Your task to perform on an android device: Go to CNN.com Image 0: 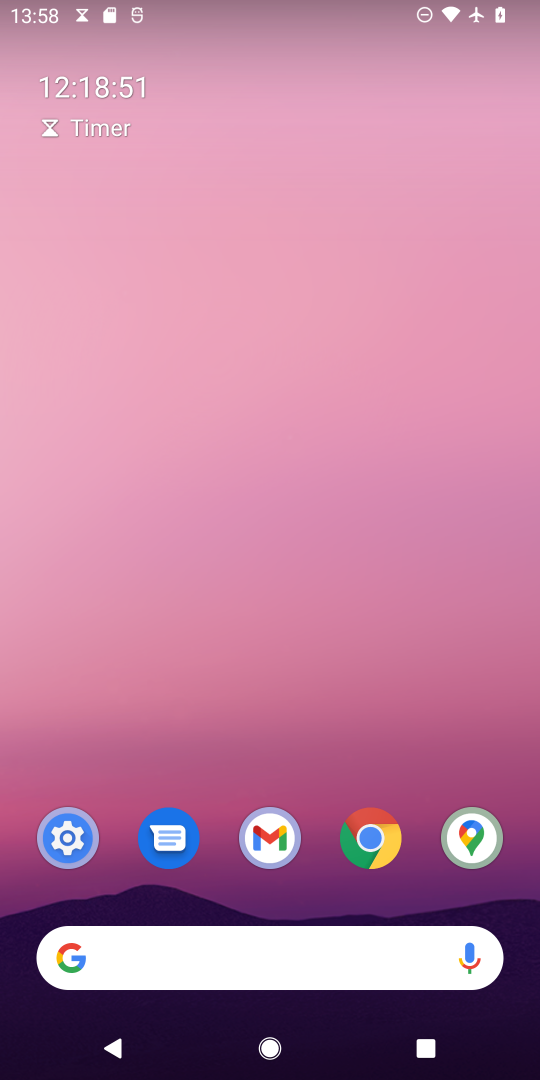
Step 0: press home button
Your task to perform on an android device: Go to CNN.com Image 1: 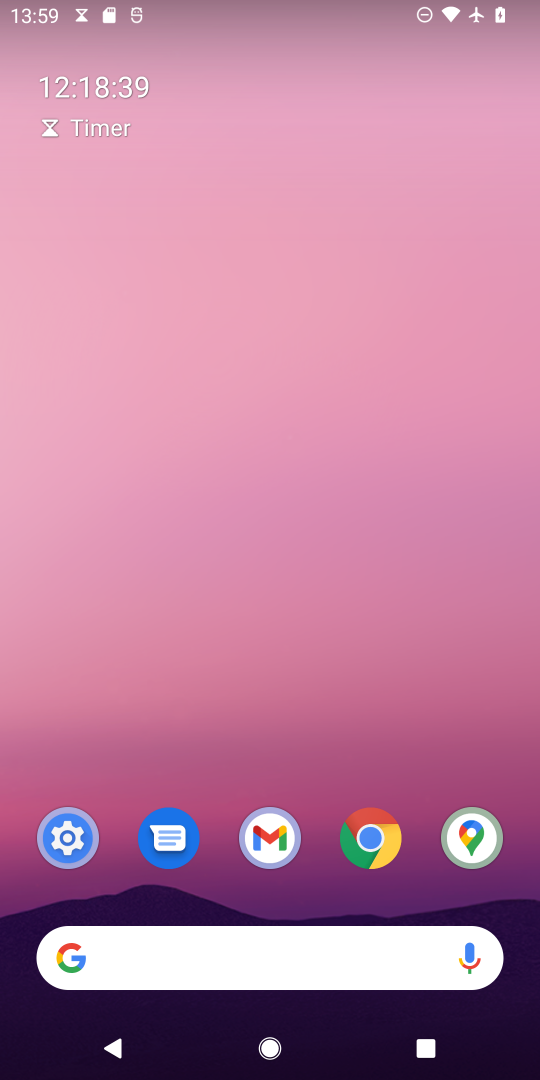
Step 1: click (69, 944)
Your task to perform on an android device: Go to CNN.com Image 2: 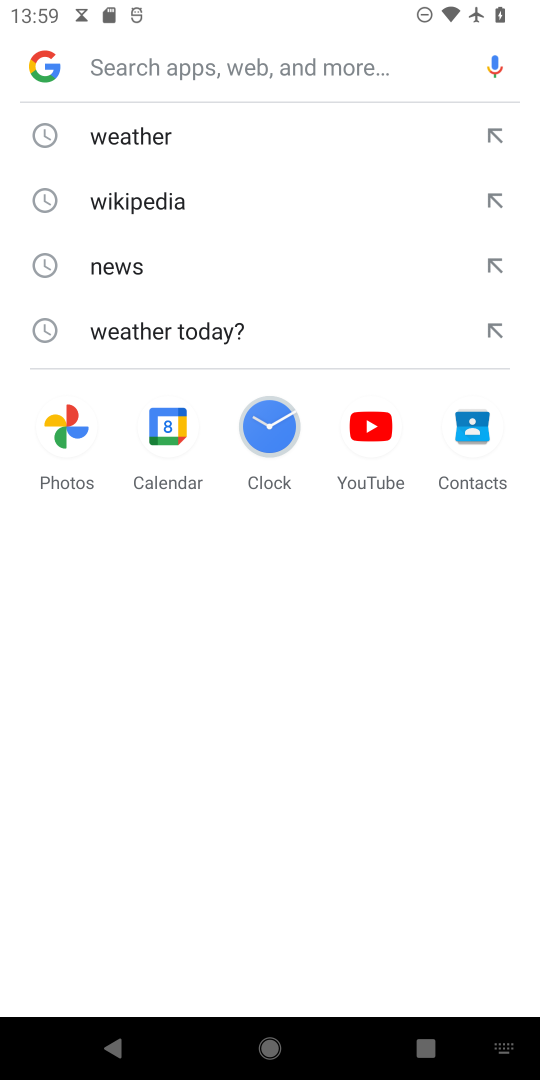
Step 2: type "CNN.com"
Your task to perform on an android device: Go to CNN.com Image 3: 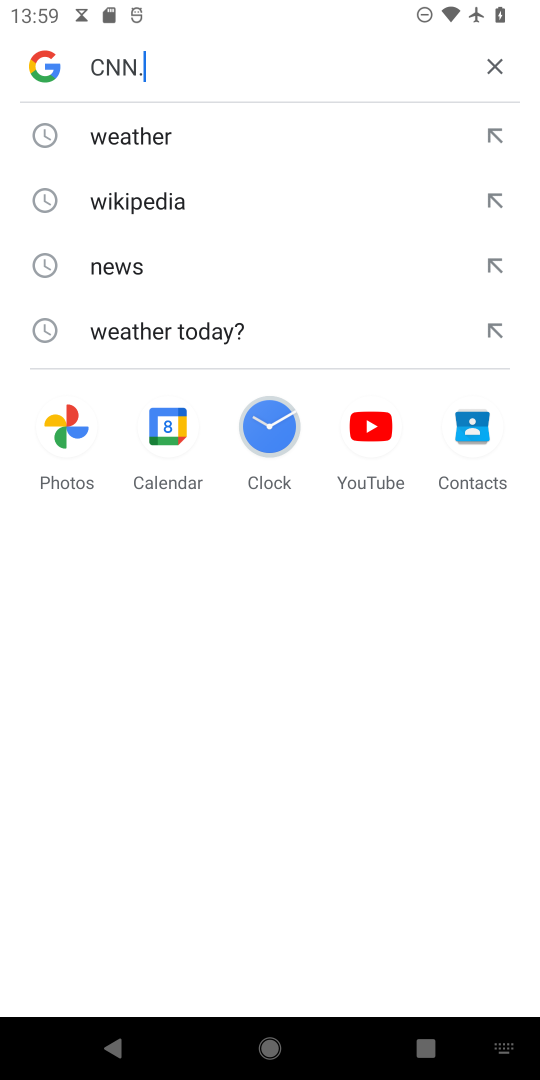
Step 3: press enter
Your task to perform on an android device: Go to CNN.com Image 4: 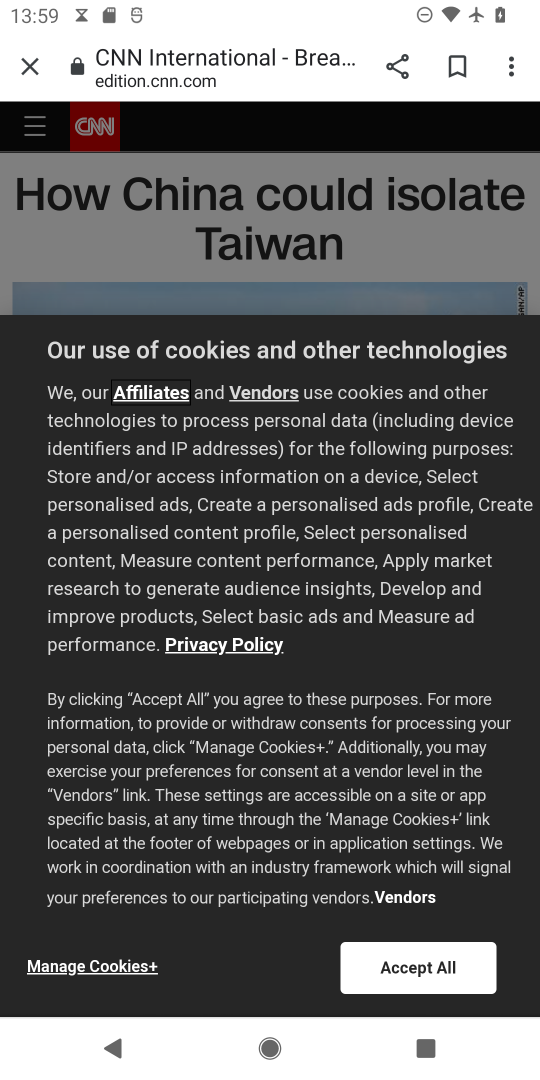
Step 4: click (428, 972)
Your task to perform on an android device: Go to CNN.com Image 5: 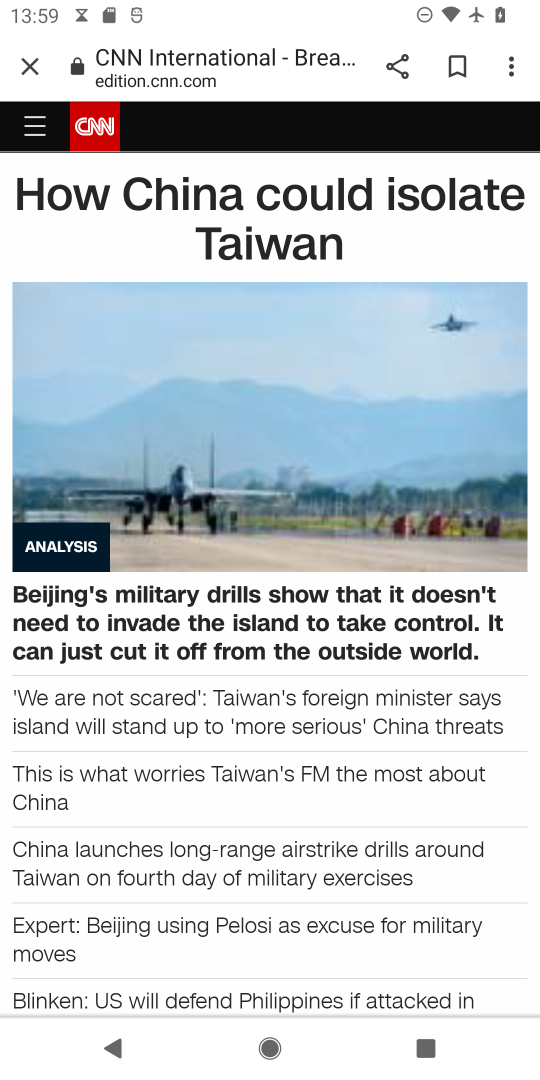
Step 5: task complete